Your task to perform on an android device: change notifications settings Image 0: 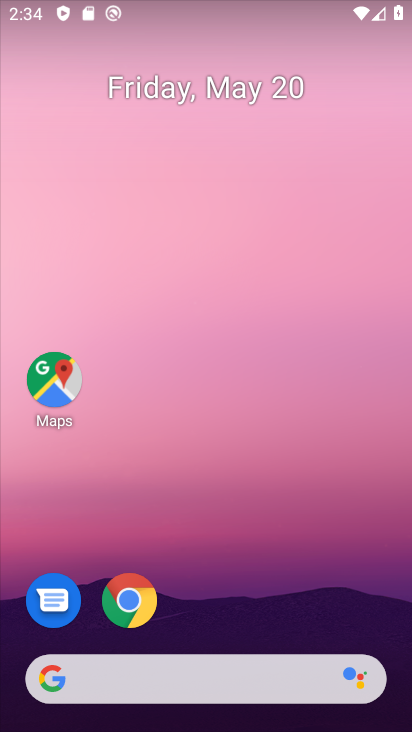
Step 0: drag from (374, 619) to (340, 288)
Your task to perform on an android device: change notifications settings Image 1: 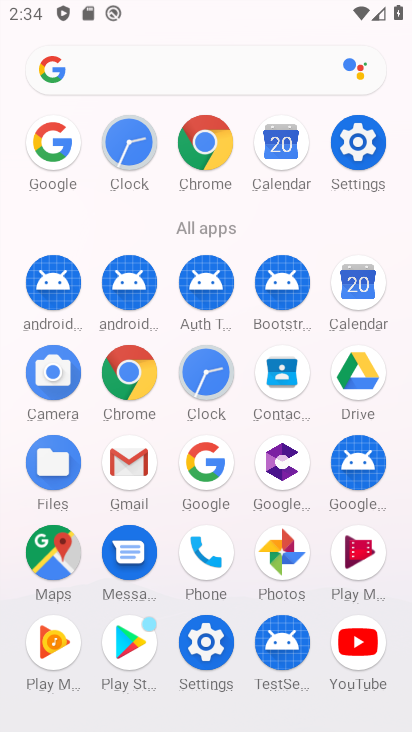
Step 1: drag from (399, 605) to (389, 400)
Your task to perform on an android device: change notifications settings Image 2: 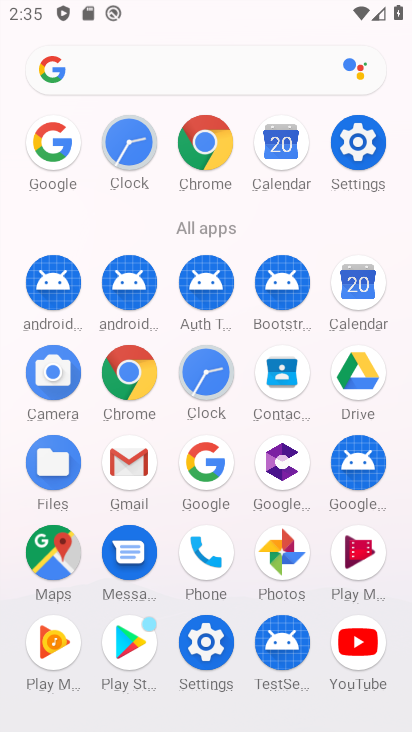
Step 2: click (188, 653)
Your task to perform on an android device: change notifications settings Image 3: 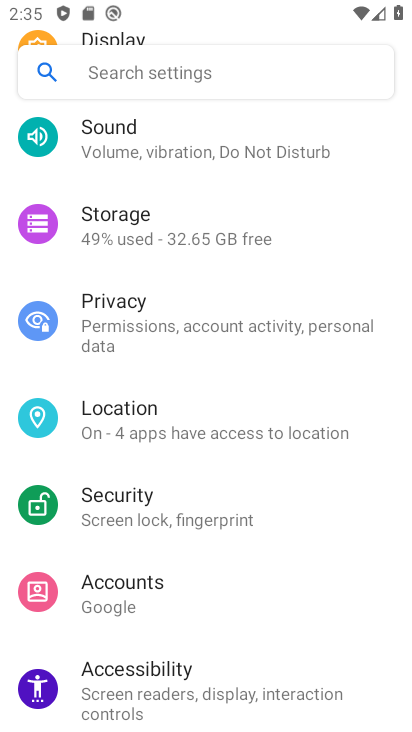
Step 3: drag from (327, 652) to (349, 511)
Your task to perform on an android device: change notifications settings Image 4: 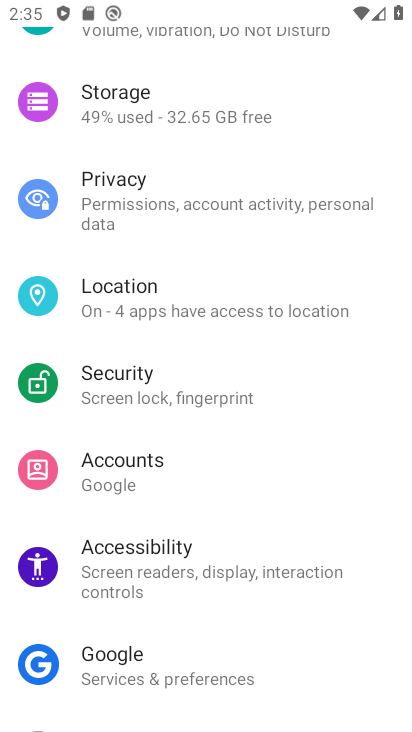
Step 4: drag from (349, 645) to (352, 540)
Your task to perform on an android device: change notifications settings Image 5: 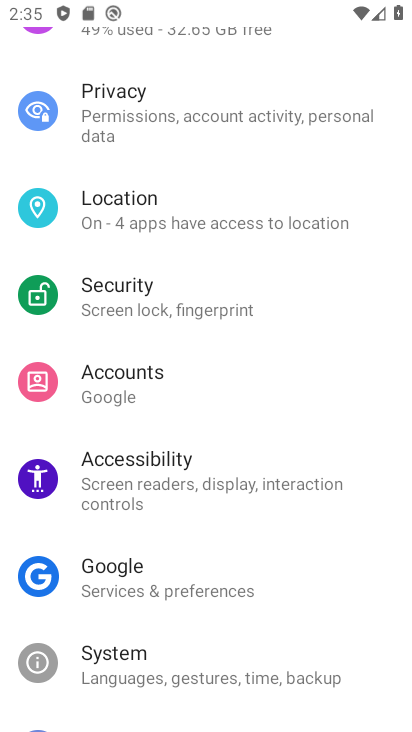
Step 5: drag from (342, 649) to (346, 579)
Your task to perform on an android device: change notifications settings Image 6: 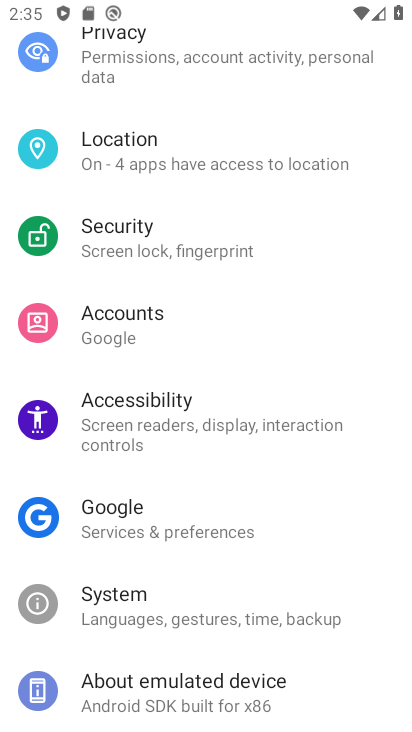
Step 6: drag from (329, 680) to (329, 595)
Your task to perform on an android device: change notifications settings Image 7: 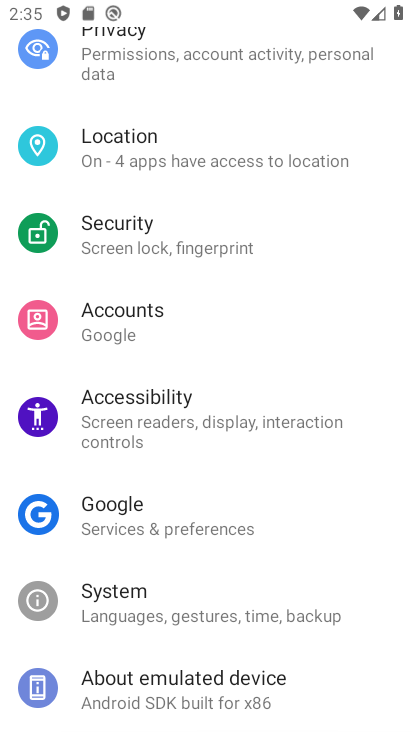
Step 7: drag from (332, 666) to (329, 563)
Your task to perform on an android device: change notifications settings Image 8: 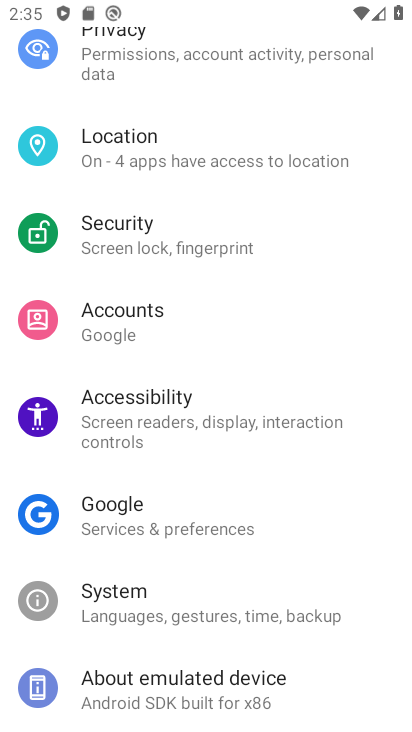
Step 8: drag from (333, 655) to (333, 525)
Your task to perform on an android device: change notifications settings Image 9: 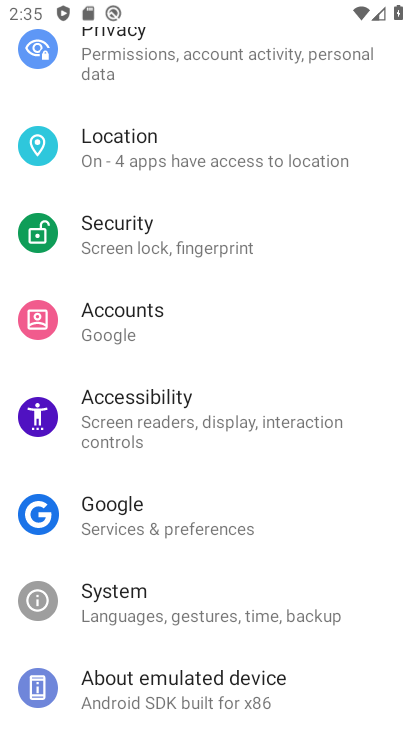
Step 9: drag from (348, 352) to (342, 512)
Your task to perform on an android device: change notifications settings Image 10: 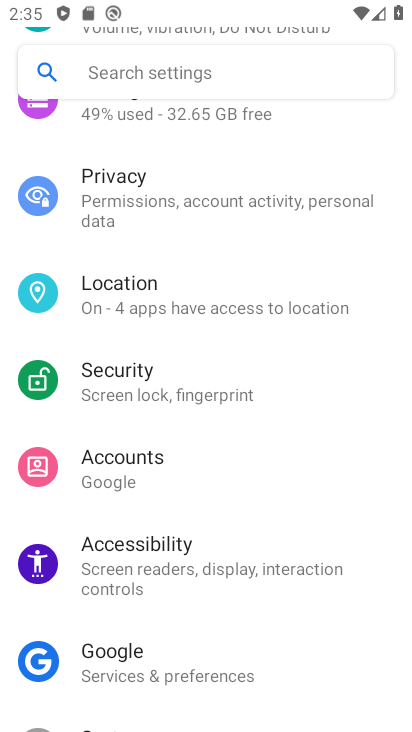
Step 10: drag from (344, 373) to (346, 486)
Your task to perform on an android device: change notifications settings Image 11: 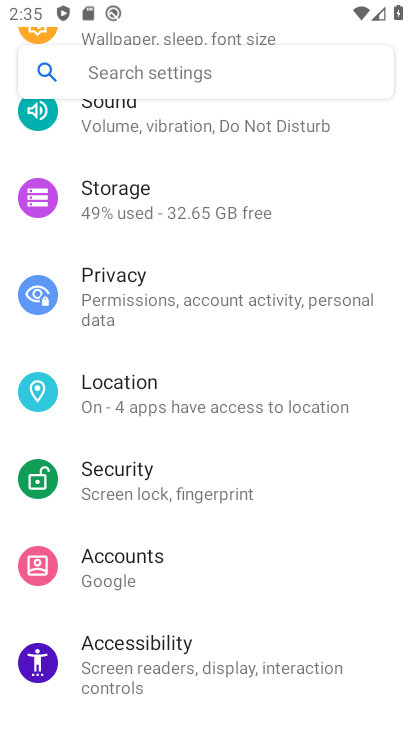
Step 11: drag from (340, 330) to (341, 433)
Your task to perform on an android device: change notifications settings Image 12: 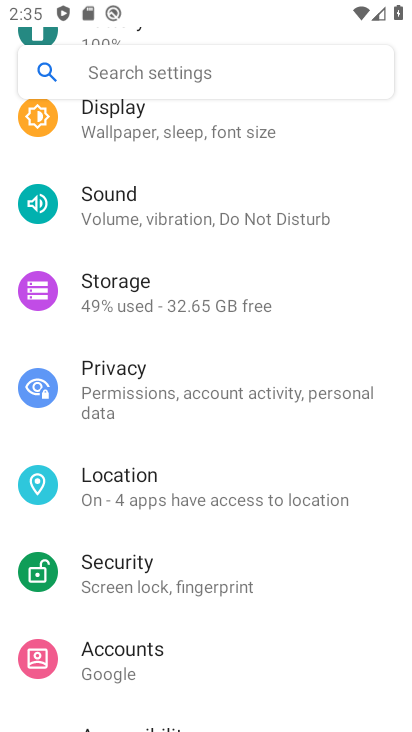
Step 12: drag from (342, 309) to (341, 434)
Your task to perform on an android device: change notifications settings Image 13: 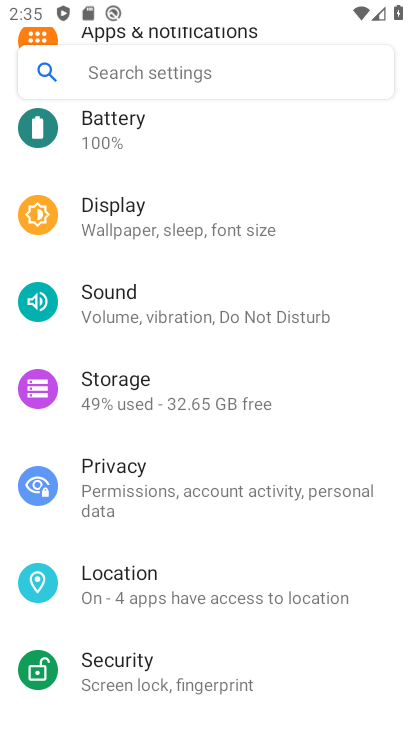
Step 13: drag from (324, 256) to (322, 394)
Your task to perform on an android device: change notifications settings Image 14: 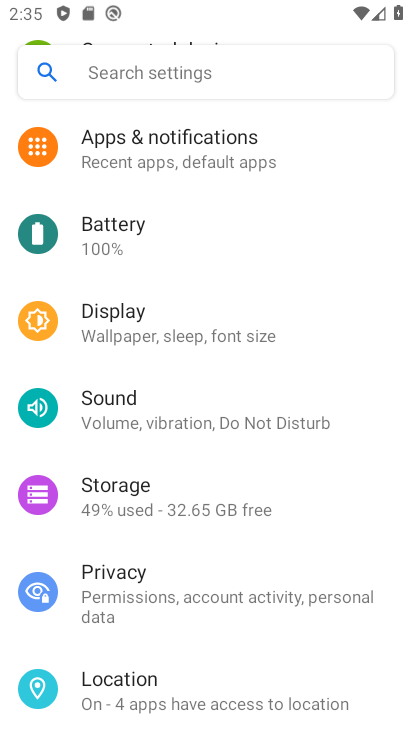
Step 14: drag from (309, 339) to (311, 412)
Your task to perform on an android device: change notifications settings Image 15: 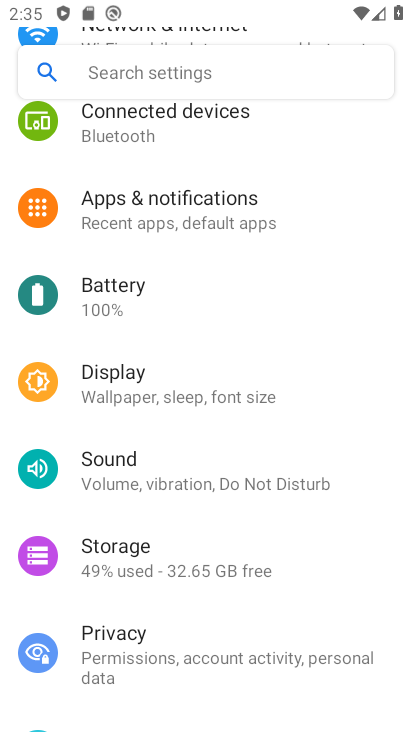
Step 15: click (234, 240)
Your task to perform on an android device: change notifications settings Image 16: 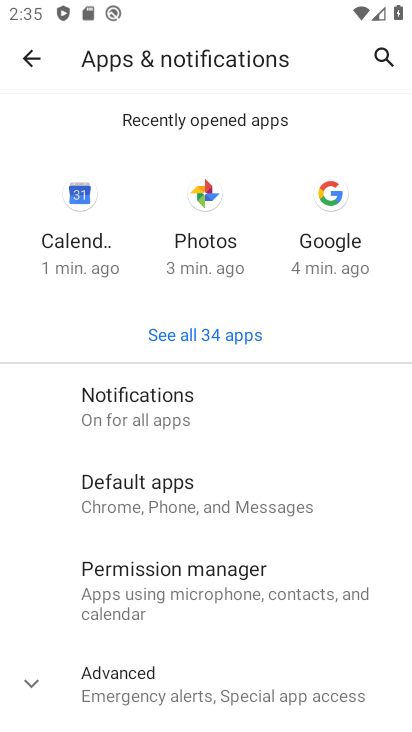
Step 16: click (168, 420)
Your task to perform on an android device: change notifications settings Image 17: 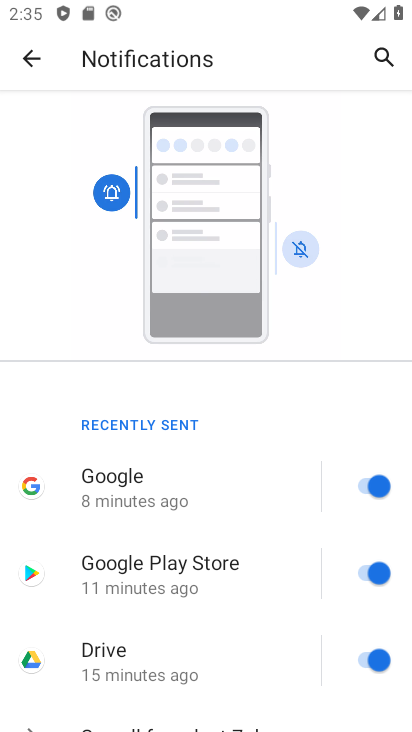
Step 17: drag from (235, 572) to (239, 487)
Your task to perform on an android device: change notifications settings Image 18: 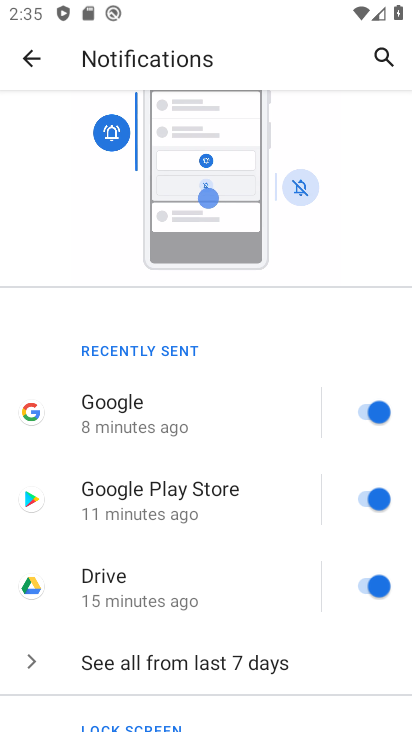
Step 18: click (363, 423)
Your task to perform on an android device: change notifications settings Image 19: 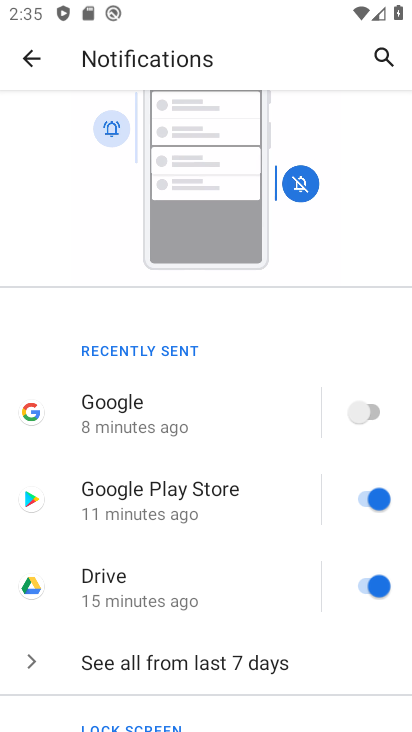
Step 19: click (372, 516)
Your task to perform on an android device: change notifications settings Image 20: 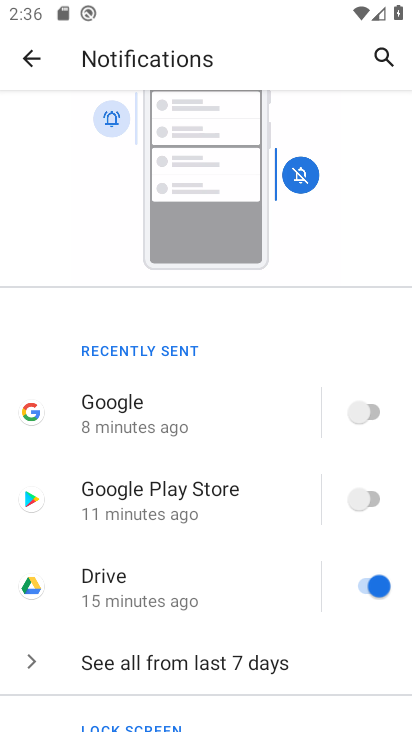
Step 20: click (369, 595)
Your task to perform on an android device: change notifications settings Image 21: 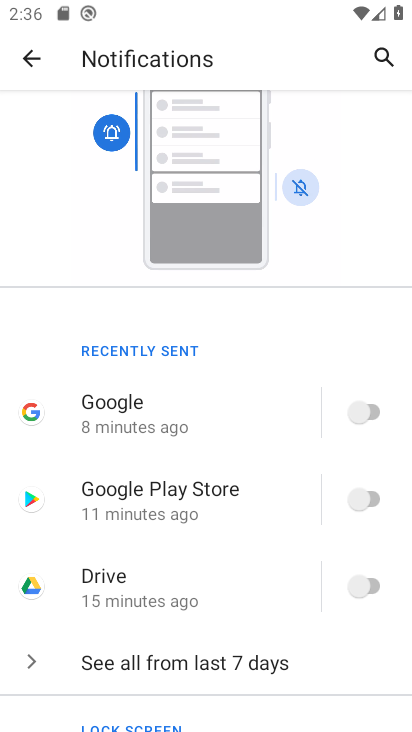
Step 21: task complete